Your task to perform on an android device: toggle notifications settings in the gmail app Image 0: 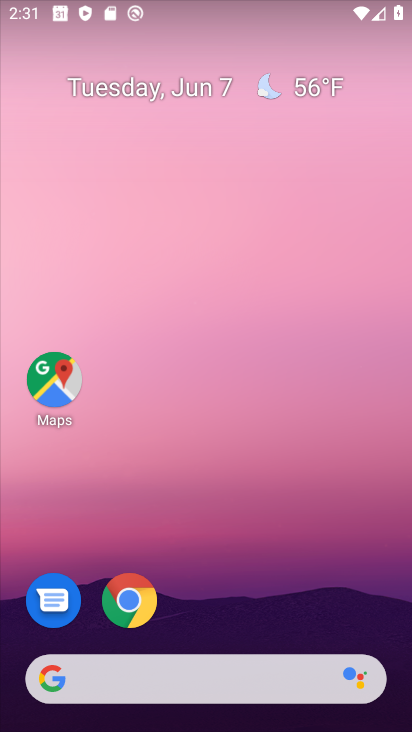
Step 0: drag from (400, 687) to (285, 88)
Your task to perform on an android device: toggle notifications settings in the gmail app Image 1: 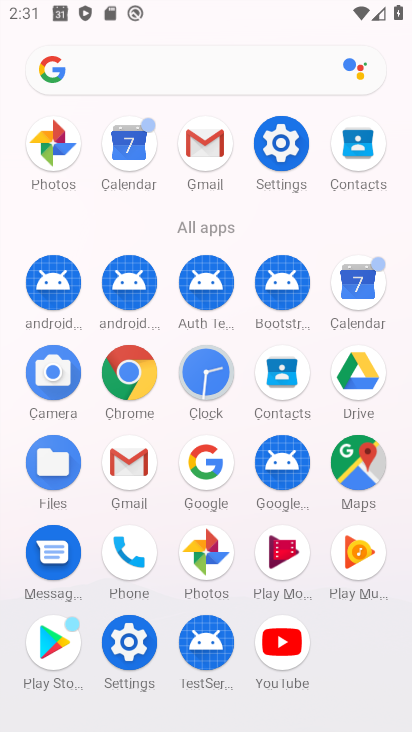
Step 1: click (125, 455)
Your task to perform on an android device: toggle notifications settings in the gmail app Image 2: 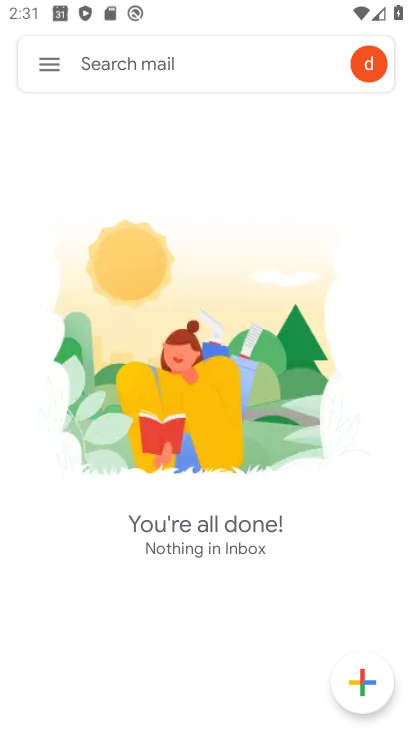
Step 2: press back button
Your task to perform on an android device: toggle notifications settings in the gmail app Image 3: 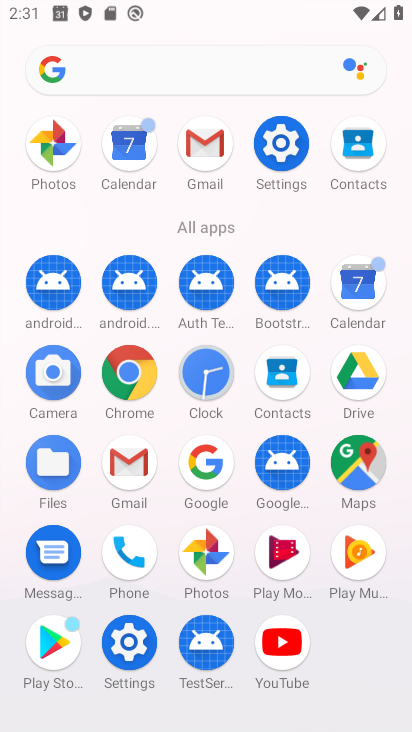
Step 3: click (51, 91)
Your task to perform on an android device: toggle notifications settings in the gmail app Image 4: 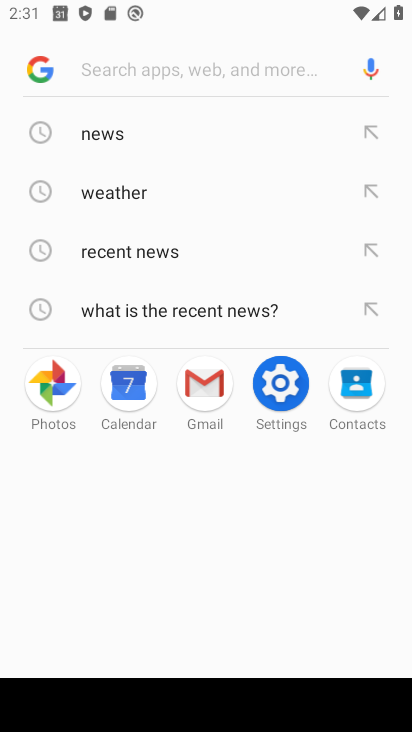
Step 4: click (144, 435)
Your task to perform on an android device: toggle notifications settings in the gmail app Image 5: 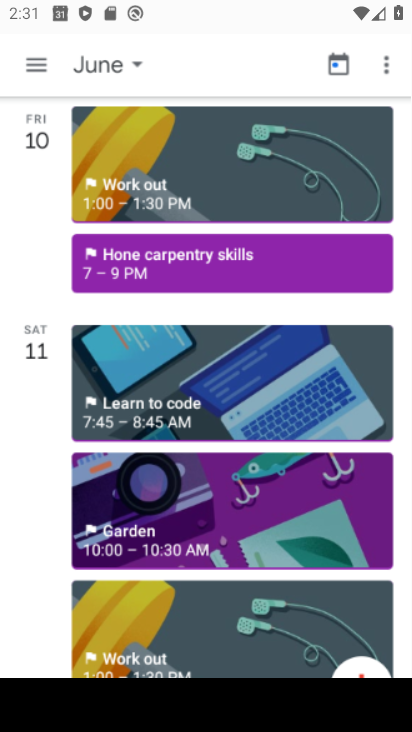
Step 5: click (181, 397)
Your task to perform on an android device: toggle notifications settings in the gmail app Image 6: 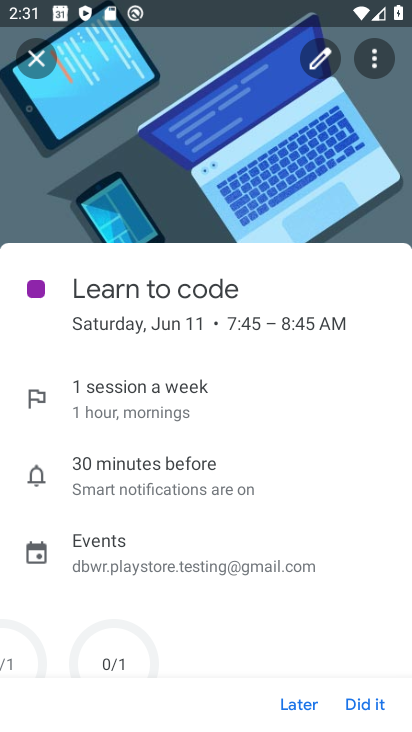
Step 6: press home button
Your task to perform on an android device: toggle notifications settings in the gmail app Image 7: 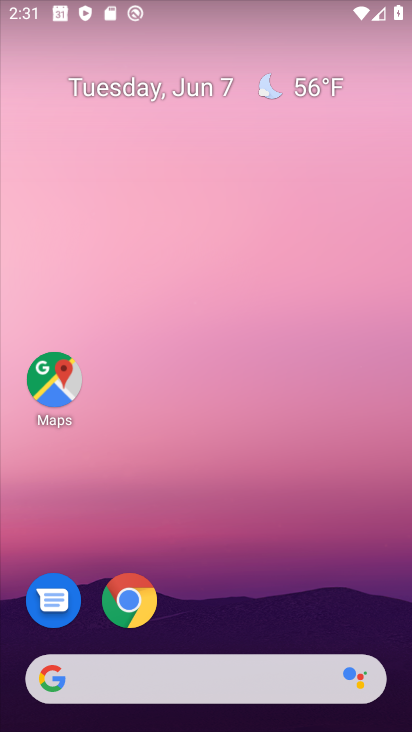
Step 7: drag from (396, 709) to (316, 89)
Your task to perform on an android device: toggle notifications settings in the gmail app Image 8: 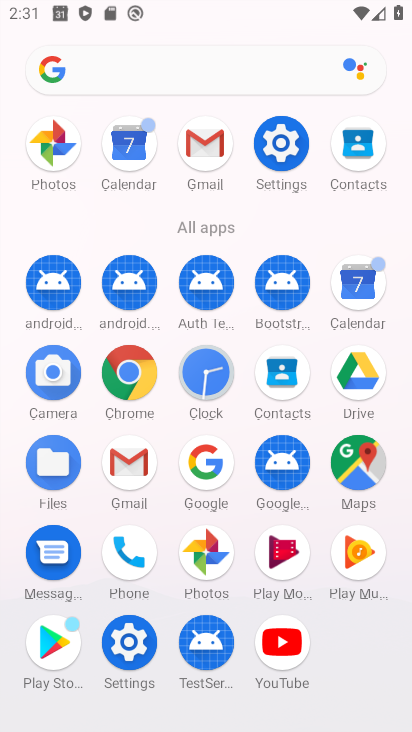
Step 8: click (139, 456)
Your task to perform on an android device: toggle notifications settings in the gmail app Image 9: 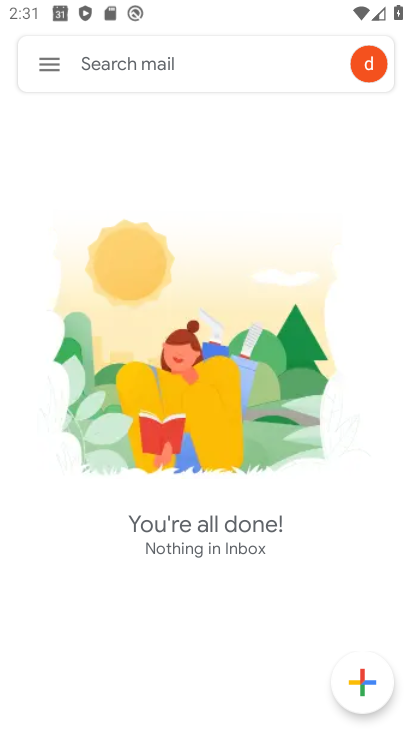
Step 9: click (46, 66)
Your task to perform on an android device: toggle notifications settings in the gmail app Image 10: 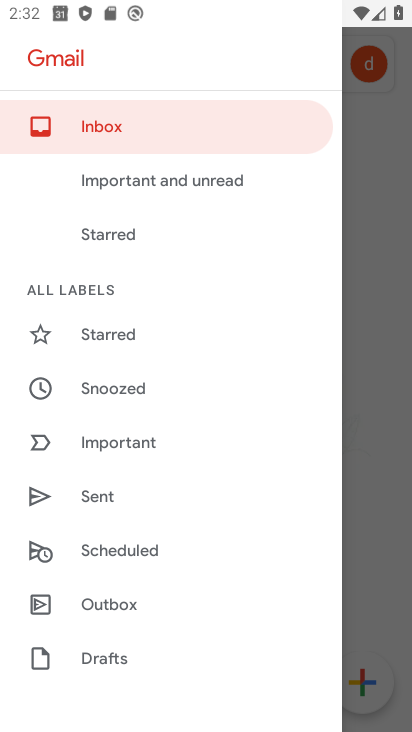
Step 10: drag from (212, 593) to (229, 342)
Your task to perform on an android device: toggle notifications settings in the gmail app Image 11: 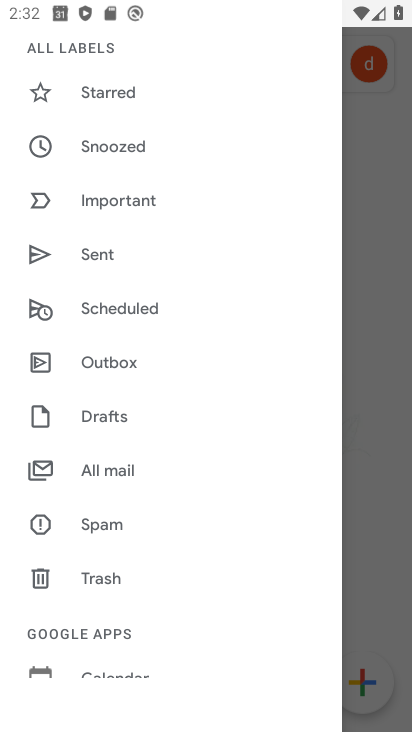
Step 11: drag from (180, 447) to (186, 277)
Your task to perform on an android device: toggle notifications settings in the gmail app Image 12: 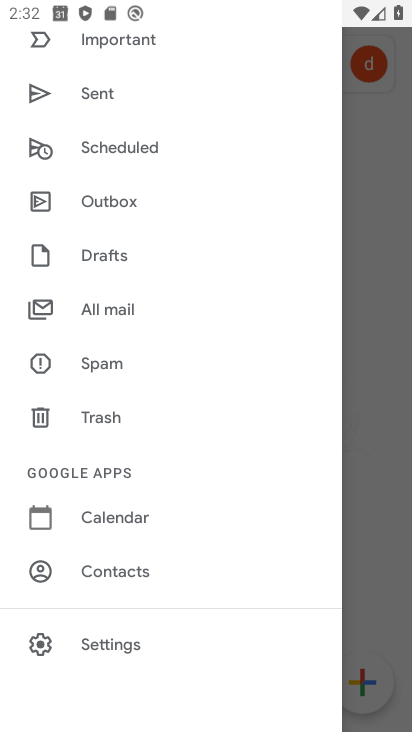
Step 12: click (117, 637)
Your task to perform on an android device: toggle notifications settings in the gmail app Image 13: 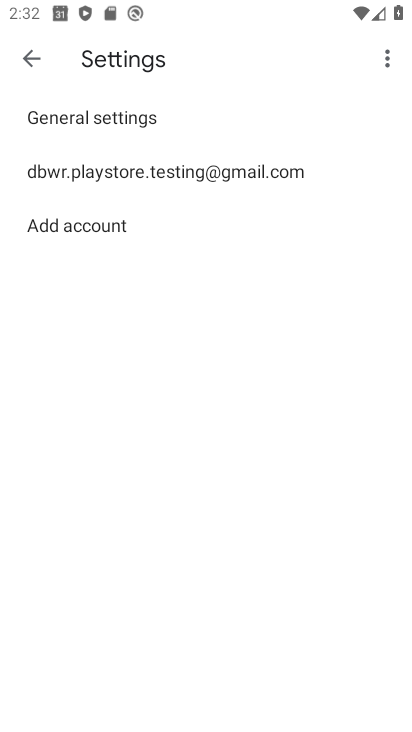
Step 13: click (80, 170)
Your task to perform on an android device: toggle notifications settings in the gmail app Image 14: 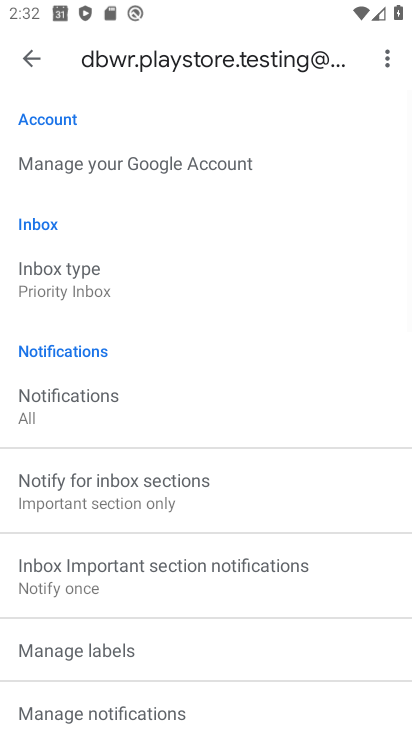
Step 14: click (27, 61)
Your task to perform on an android device: toggle notifications settings in the gmail app Image 15: 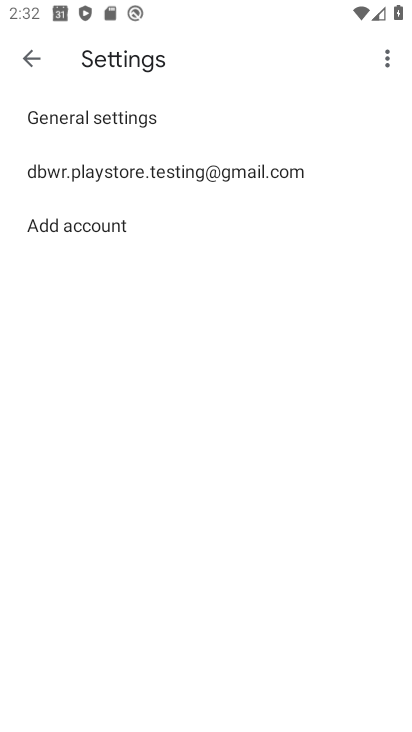
Step 15: click (68, 116)
Your task to perform on an android device: toggle notifications settings in the gmail app Image 16: 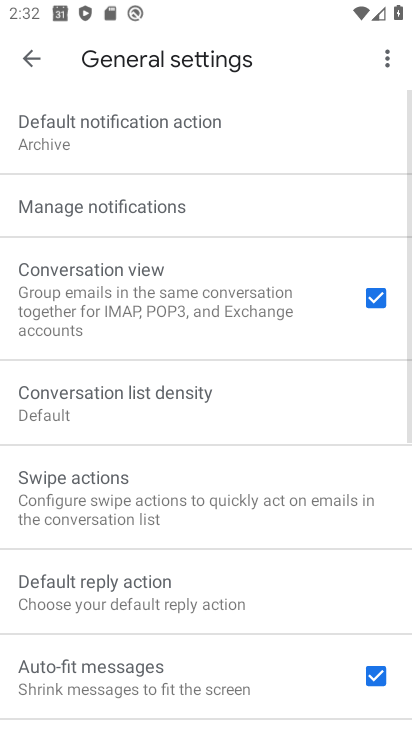
Step 16: click (104, 215)
Your task to perform on an android device: toggle notifications settings in the gmail app Image 17: 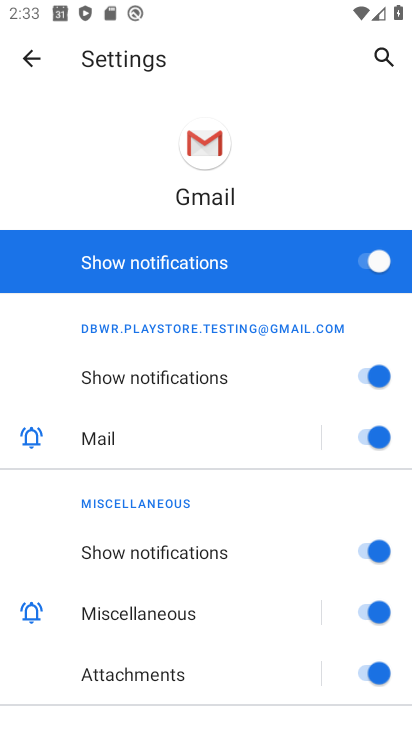
Step 17: click (370, 259)
Your task to perform on an android device: toggle notifications settings in the gmail app Image 18: 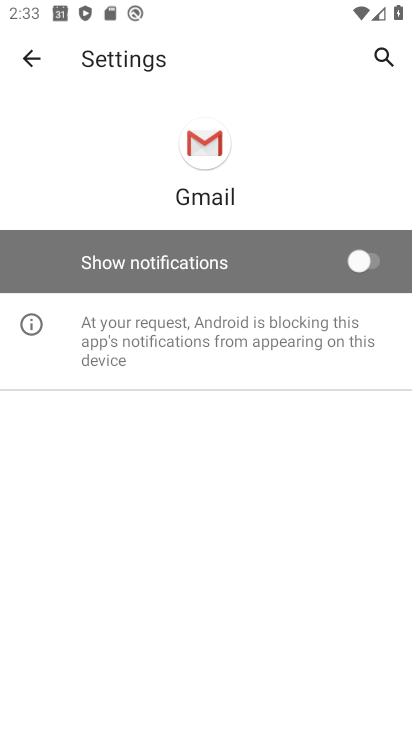
Step 18: press home button
Your task to perform on an android device: toggle notifications settings in the gmail app Image 19: 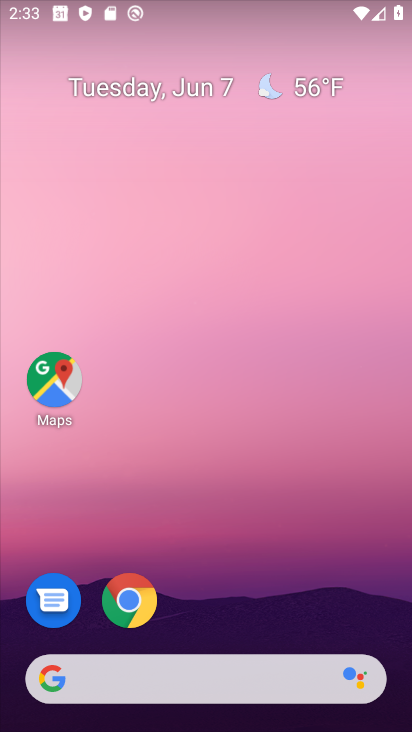
Step 19: drag from (398, 709) to (370, 107)
Your task to perform on an android device: toggle notifications settings in the gmail app Image 20: 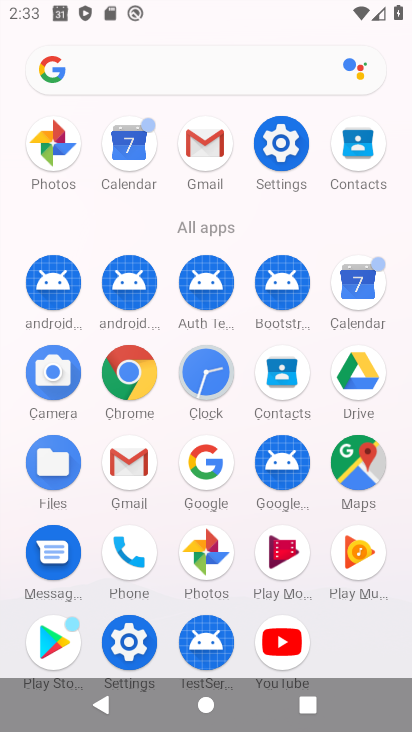
Step 20: click (146, 456)
Your task to perform on an android device: toggle notifications settings in the gmail app Image 21: 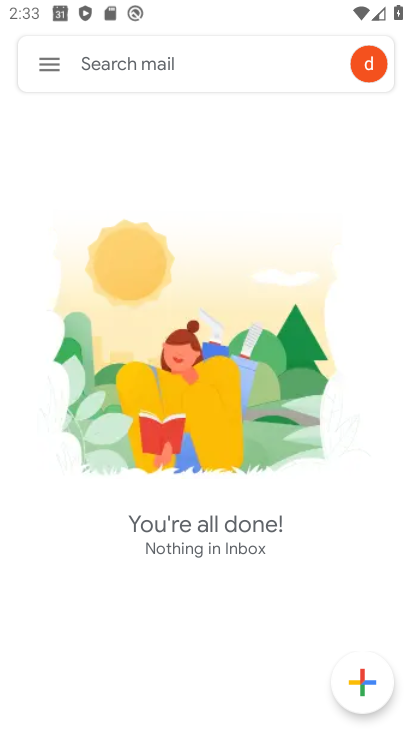
Step 21: click (54, 71)
Your task to perform on an android device: toggle notifications settings in the gmail app Image 22: 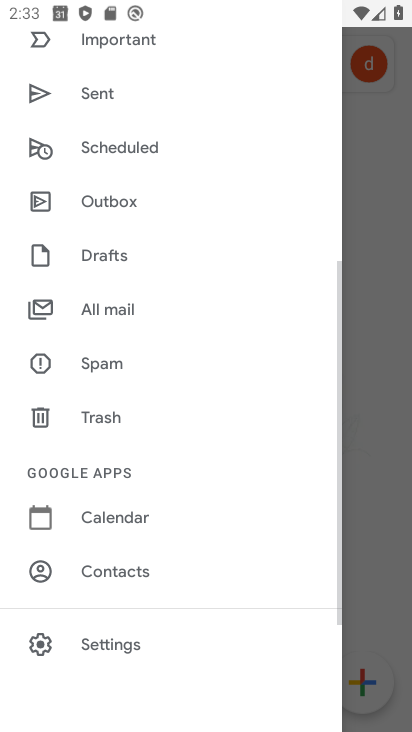
Step 22: click (106, 632)
Your task to perform on an android device: toggle notifications settings in the gmail app Image 23: 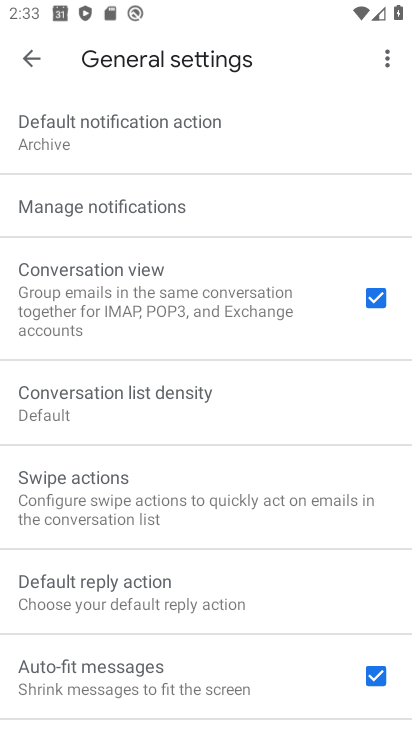
Step 23: click (113, 192)
Your task to perform on an android device: toggle notifications settings in the gmail app Image 24: 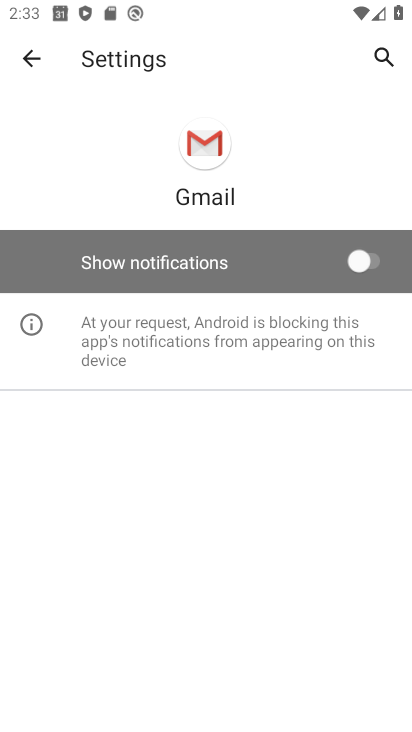
Step 24: click (367, 263)
Your task to perform on an android device: toggle notifications settings in the gmail app Image 25: 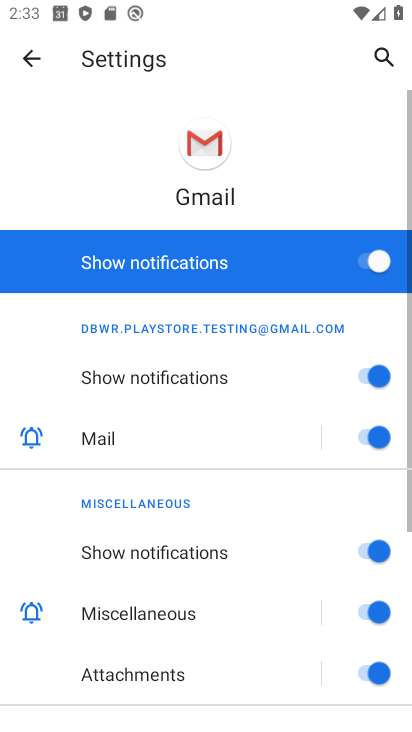
Step 25: task complete